Your task to perform on an android device: open the mobile data screen to see how much data has been used Image 0: 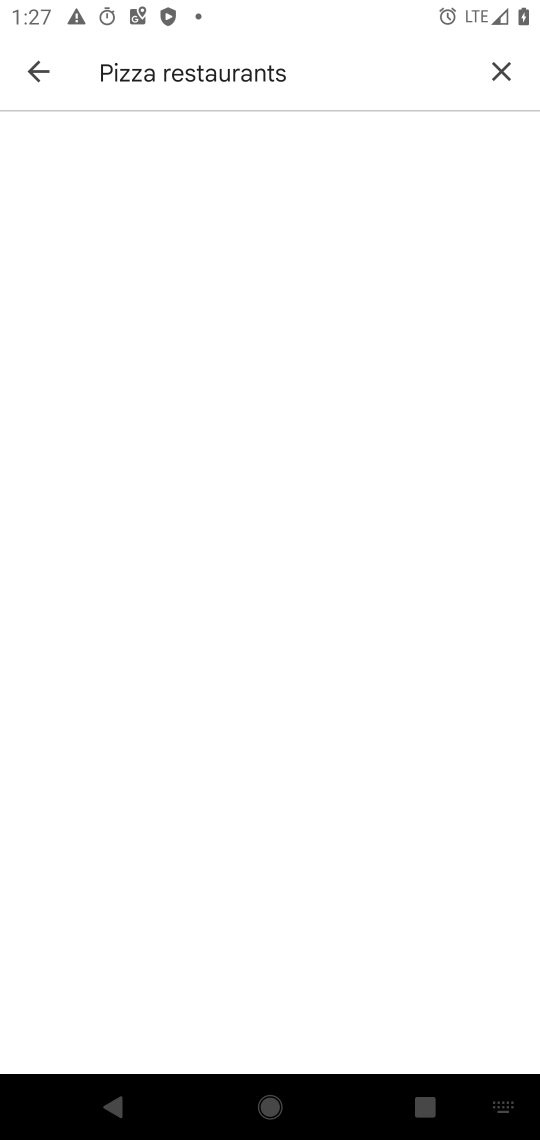
Step 0: press home button
Your task to perform on an android device: open the mobile data screen to see how much data has been used Image 1: 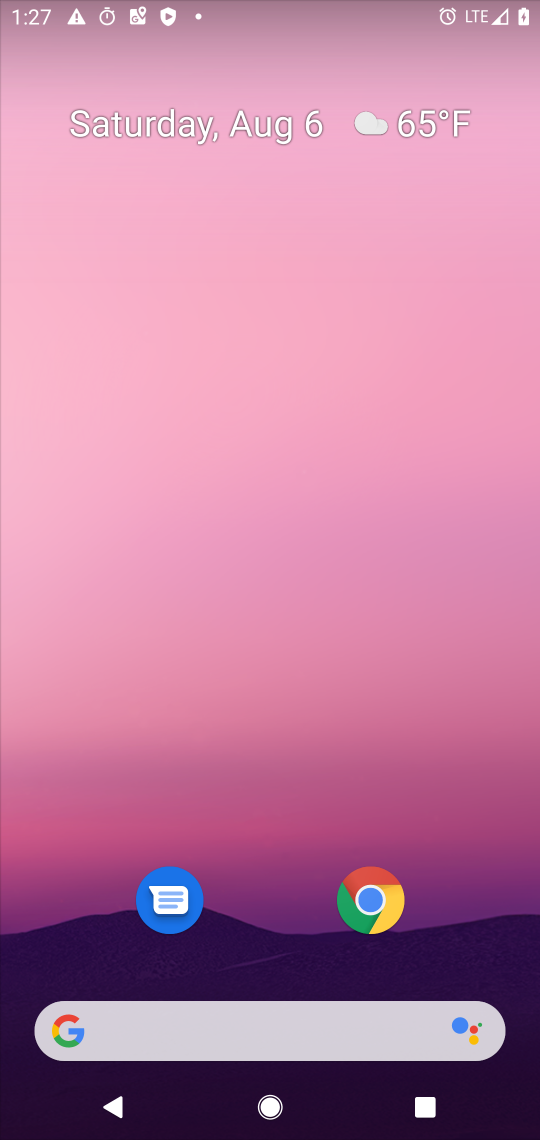
Step 1: drag from (278, 985) to (274, 345)
Your task to perform on an android device: open the mobile data screen to see how much data has been used Image 2: 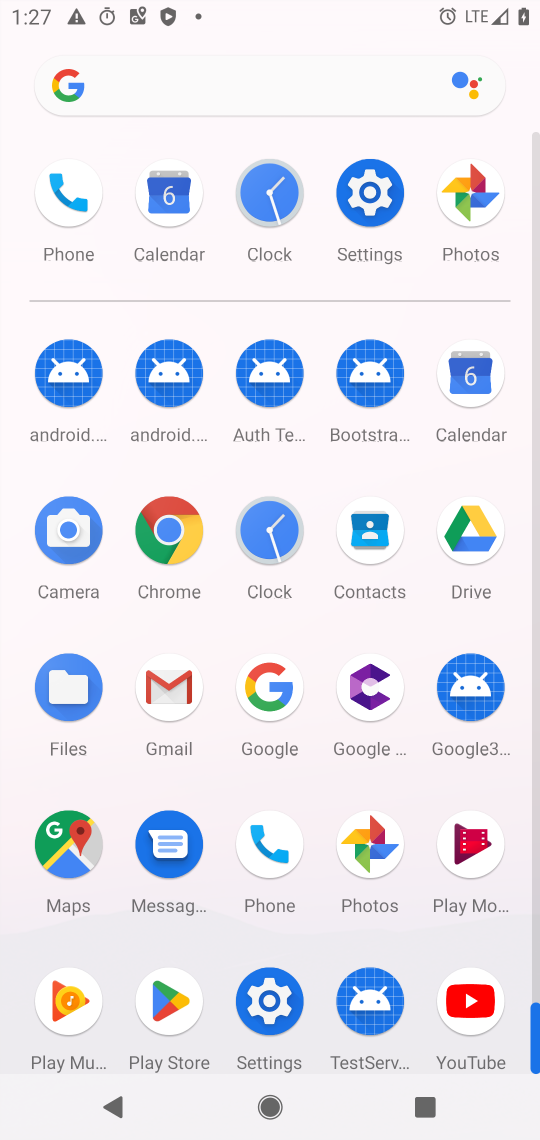
Step 2: click (376, 190)
Your task to perform on an android device: open the mobile data screen to see how much data has been used Image 3: 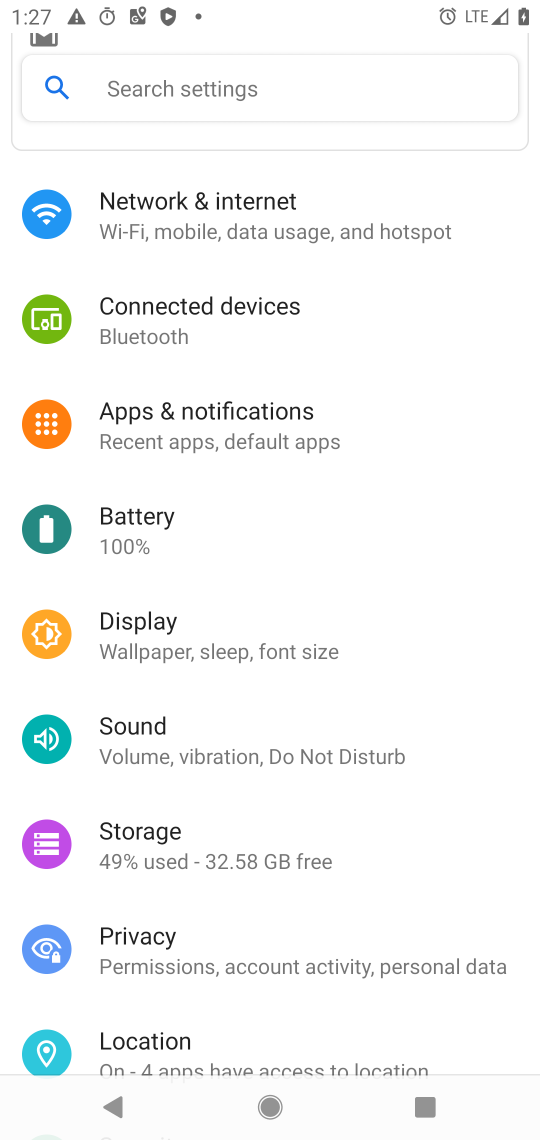
Step 3: click (186, 227)
Your task to perform on an android device: open the mobile data screen to see how much data has been used Image 4: 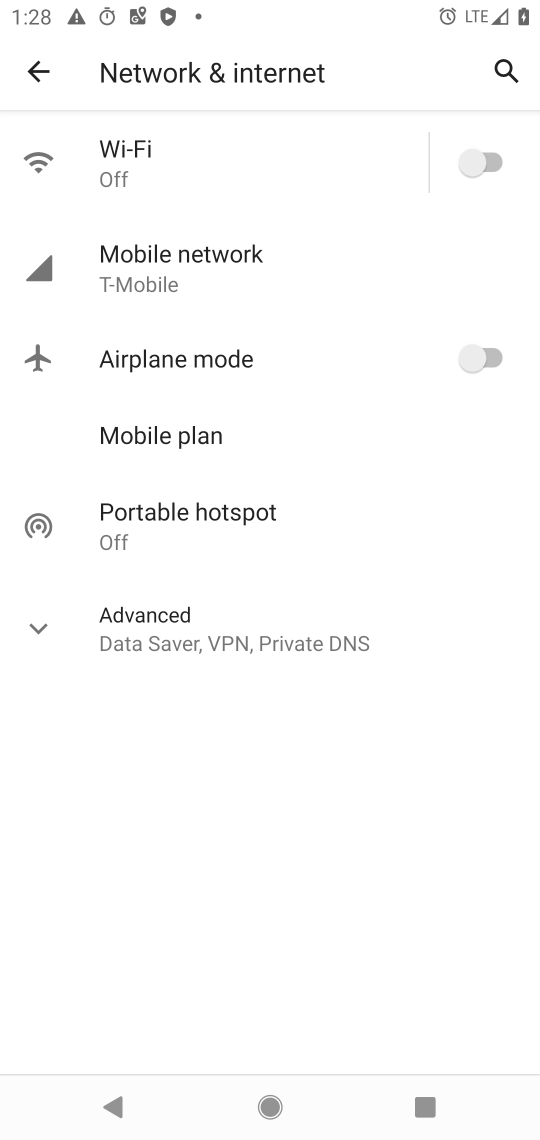
Step 4: click (133, 266)
Your task to perform on an android device: open the mobile data screen to see how much data has been used Image 5: 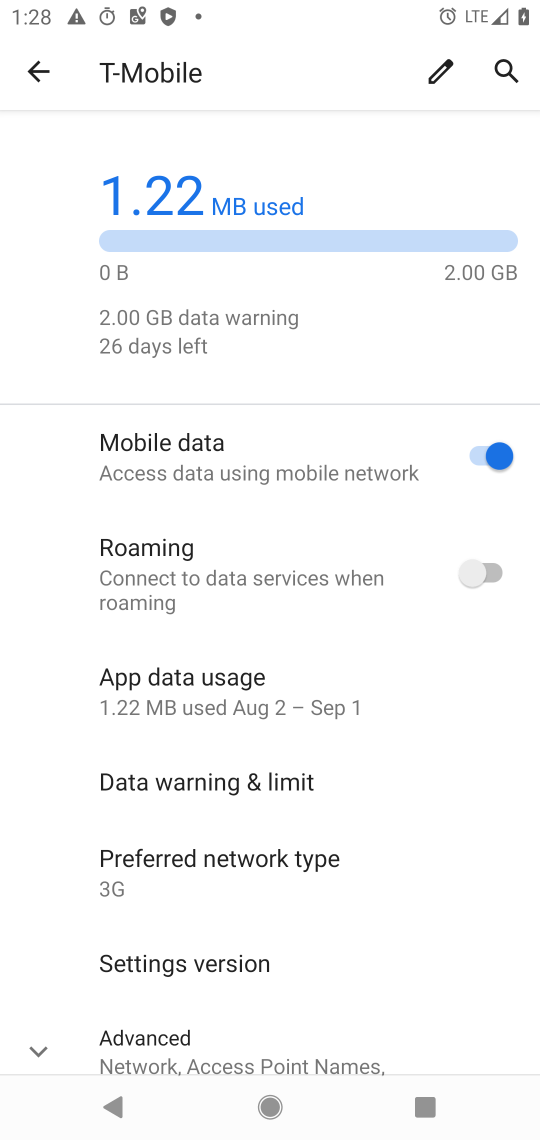
Step 5: click (212, 704)
Your task to perform on an android device: open the mobile data screen to see how much data has been used Image 6: 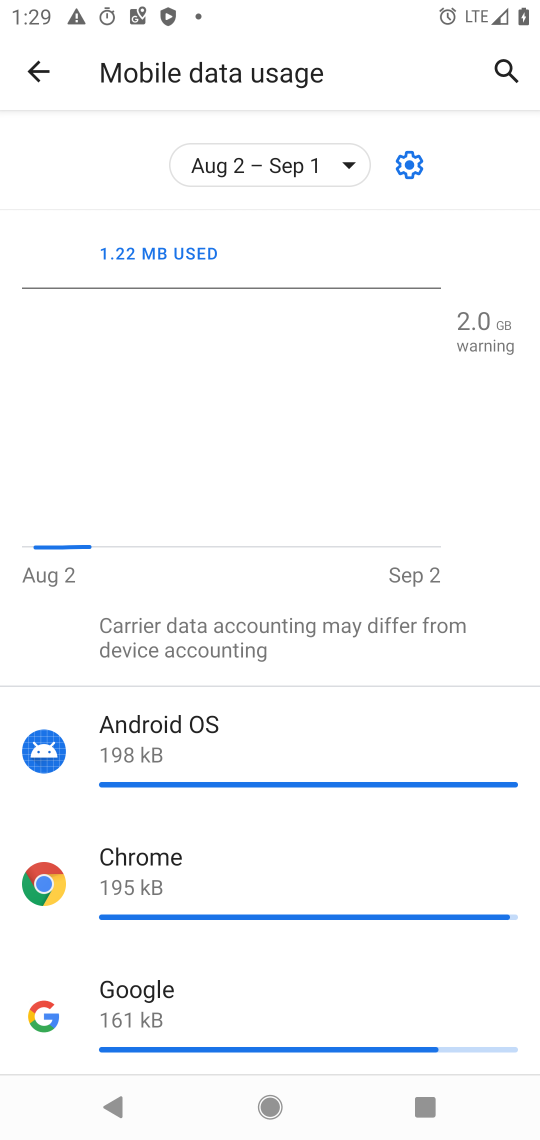
Step 6: task complete